Your task to perform on an android device: Play the last video I watched on Youtube Image 0: 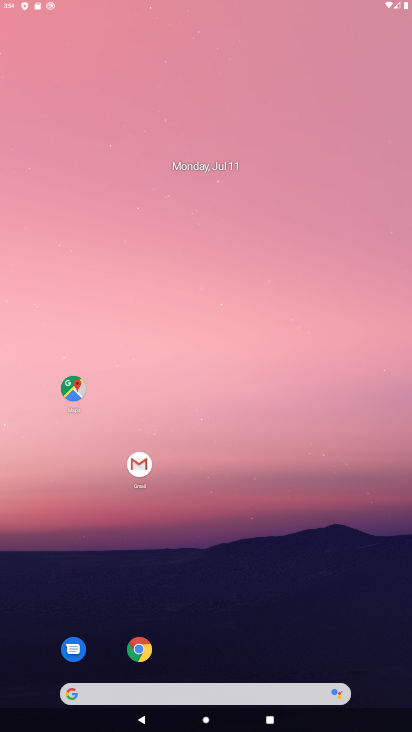
Step 0: click (72, 396)
Your task to perform on an android device: Play the last video I watched on Youtube Image 1: 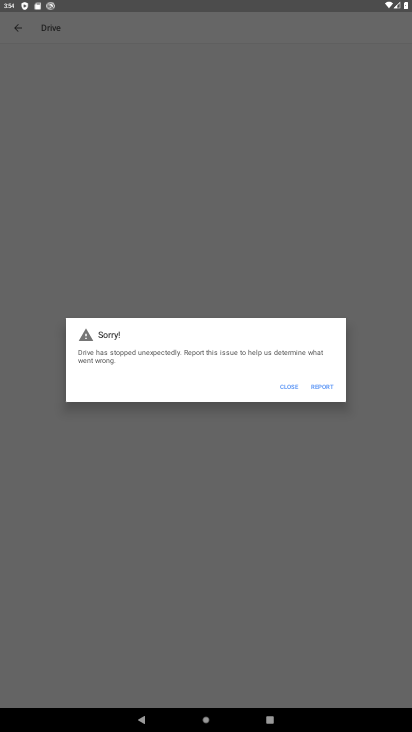
Step 1: press home button
Your task to perform on an android device: Play the last video I watched on Youtube Image 2: 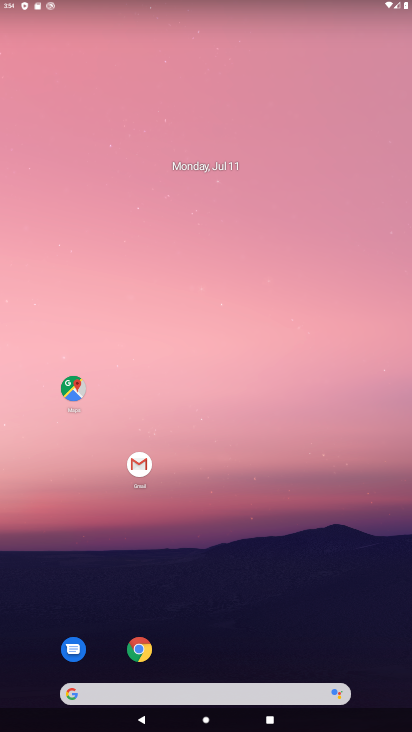
Step 2: drag from (25, 694) to (194, 157)
Your task to perform on an android device: Play the last video I watched on Youtube Image 3: 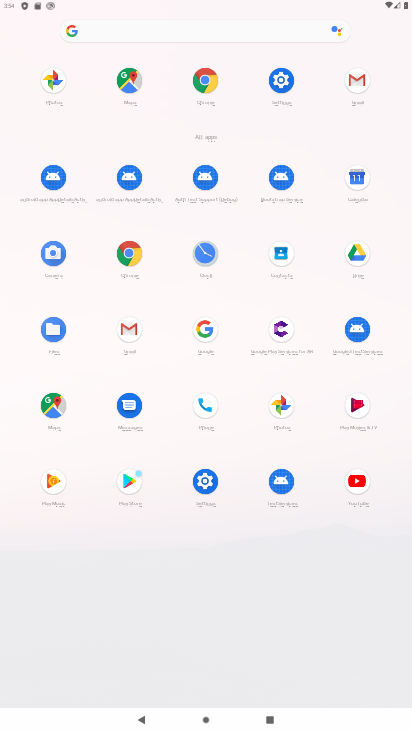
Step 3: click (357, 493)
Your task to perform on an android device: Play the last video I watched on Youtube Image 4: 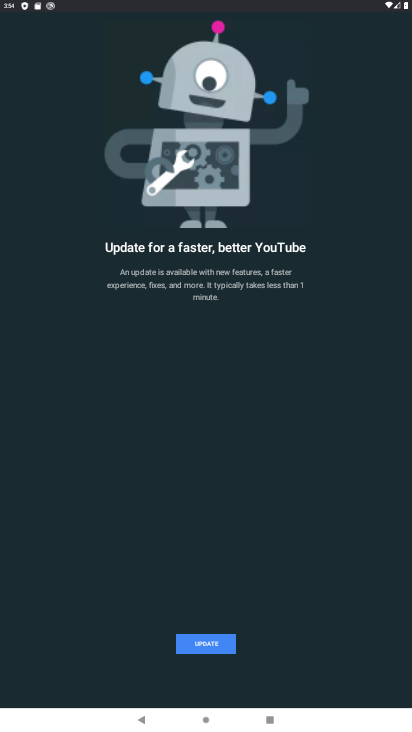
Step 4: click (209, 639)
Your task to perform on an android device: Play the last video I watched on Youtube Image 5: 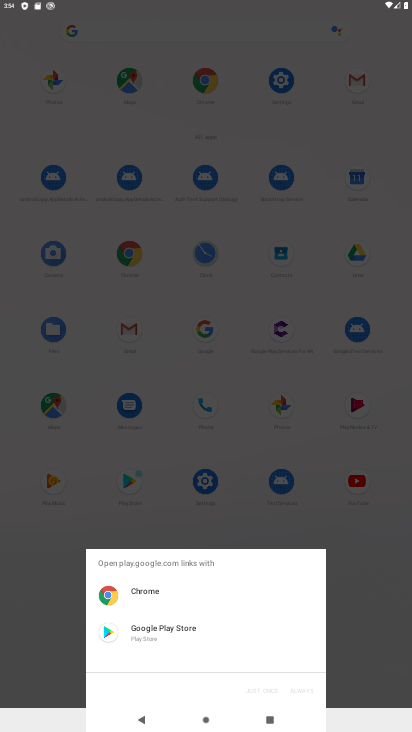
Step 5: click (199, 628)
Your task to perform on an android device: Play the last video I watched on Youtube Image 6: 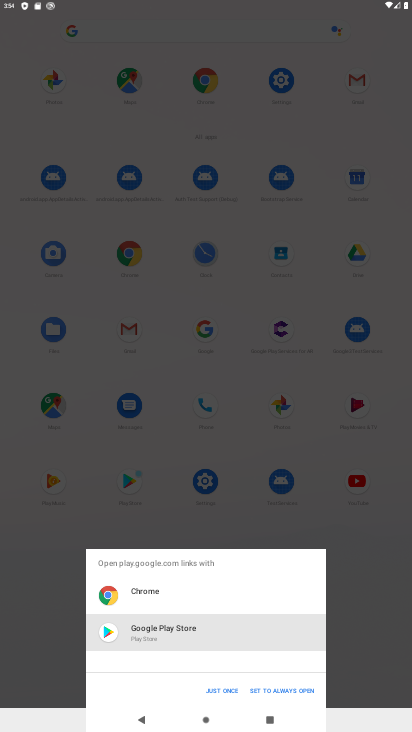
Step 6: click (226, 686)
Your task to perform on an android device: Play the last video I watched on Youtube Image 7: 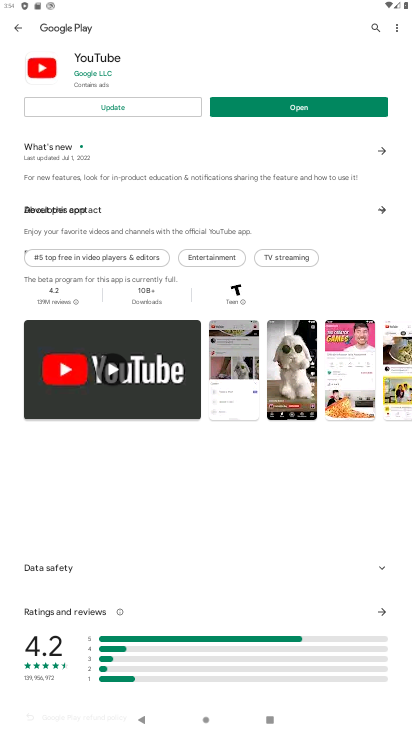
Step 7: click (314, 97)
Your task to perform on an android device: Play the last video I watched on Youtube Image 8: 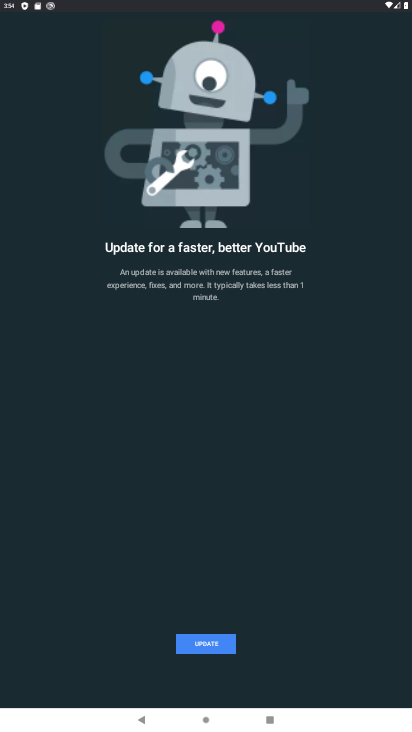
Step 8: task complete